Your task to perform on an android device: empty trash in the gmail app Image 0: 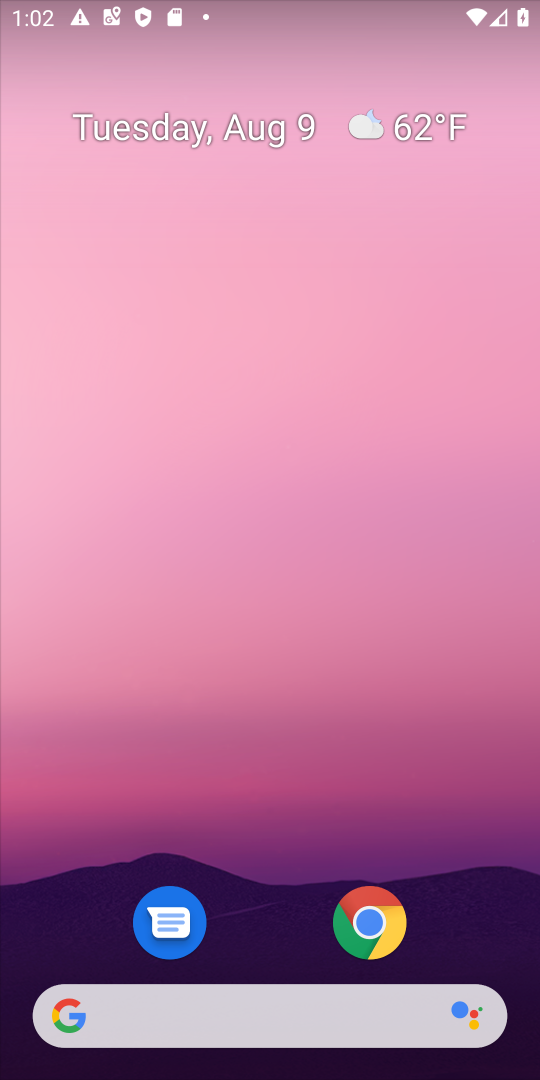
Step 0: drag from (270, 961) to (148, 156)
Your task to perform on an android device: empty trash in the gmail app Image 1: 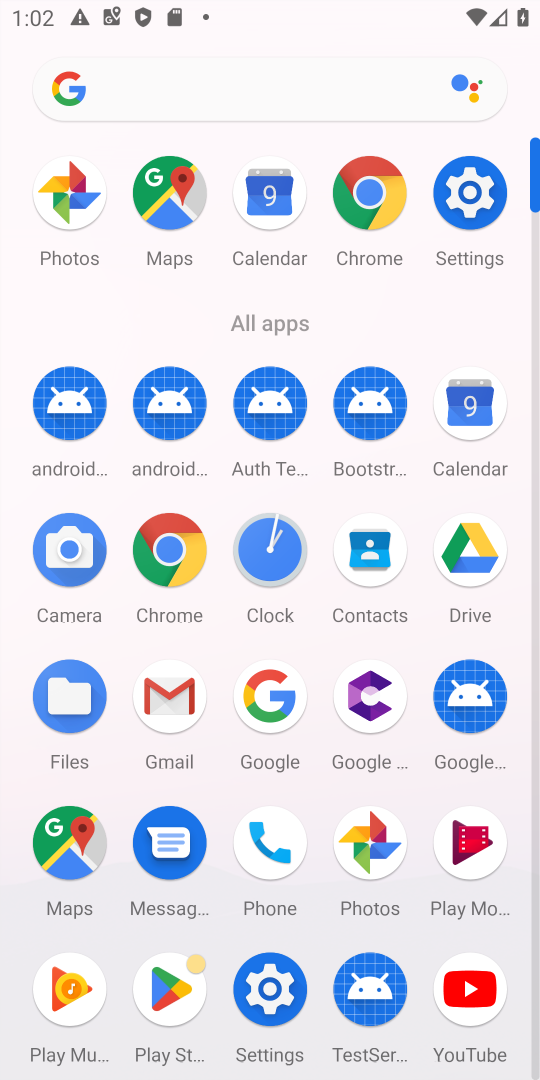
Step 1: click (174, 668)
Your task to perform on an android device: empty trash in the gmail app Image 2: 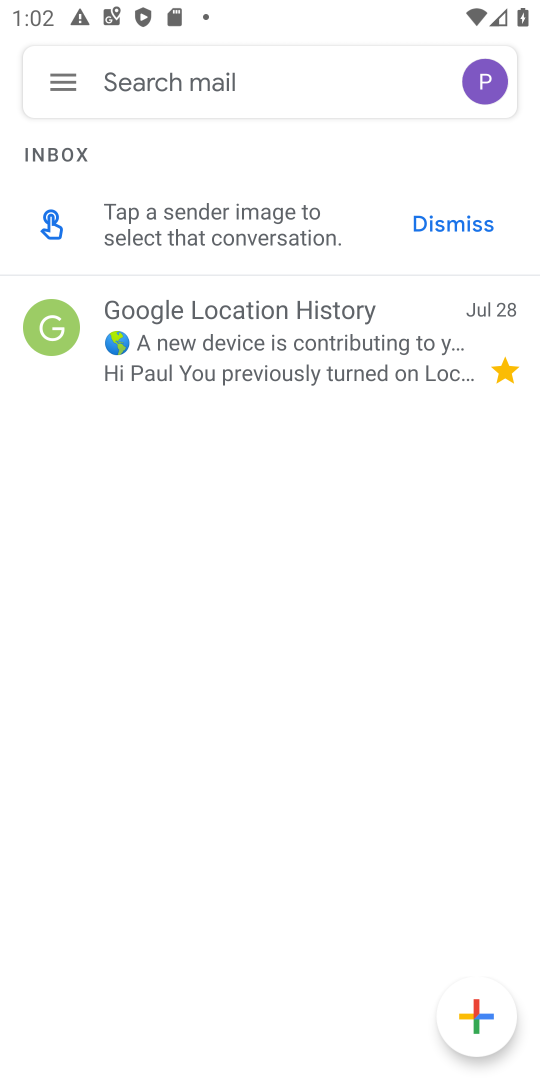
Step 2: click (73, 74)
Your task to perform on an android device: empty trash in the gmail app Image 3: 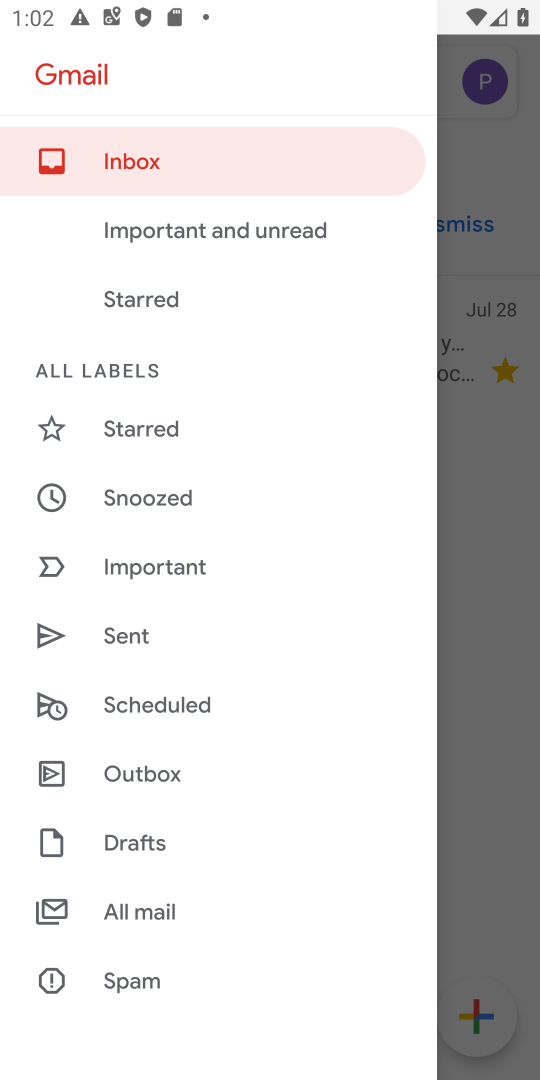
Step 3: drag from (179, 802) to (174, 365)
Your task to perform on an android device: empty trash in the gmail app Image 4: 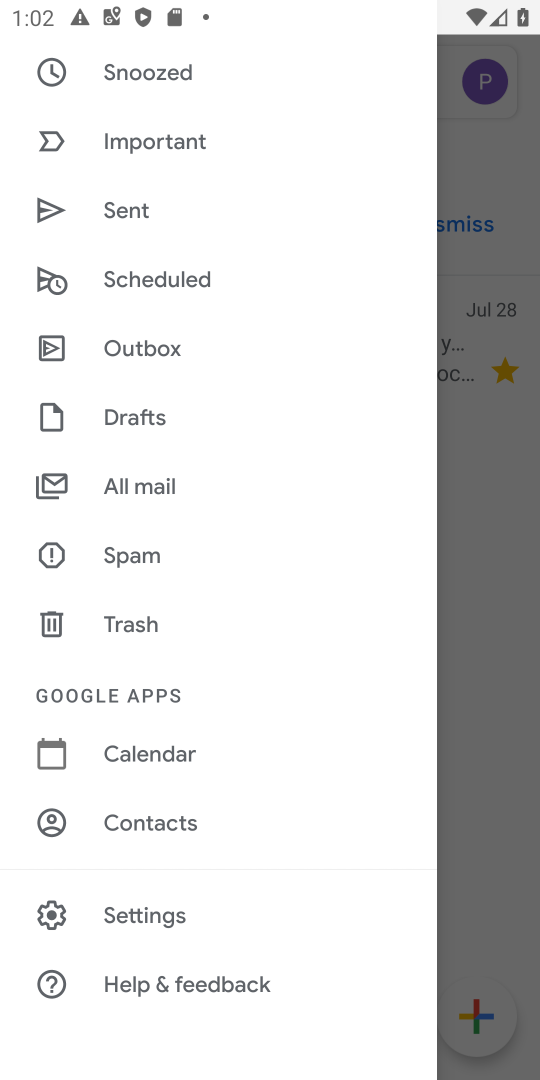
Step 4: click (119, 603)
Your task to perform on an android device: empty trash in the gmail app Image 5: 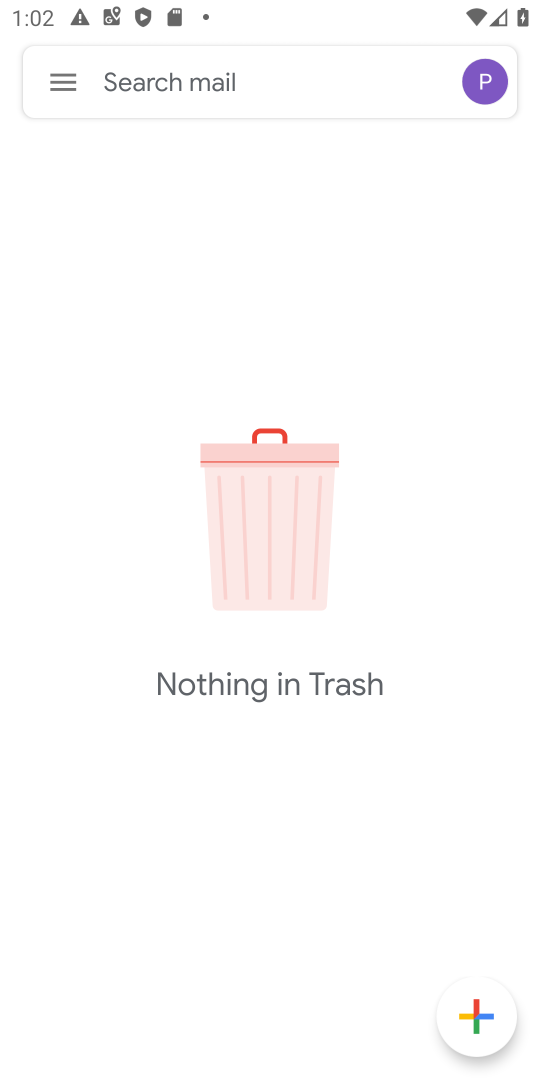
Step 5: task complete